Your task to perform on an android device: Open the phone app and click the voicemail tab. Image 0: 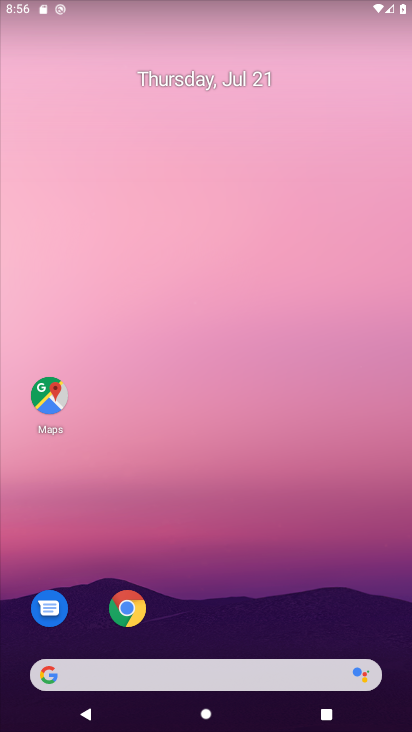
Step 0: click (53, 400)
Your task to perform on an android device: Open the phone app and click the voicemail tab. Image 1: 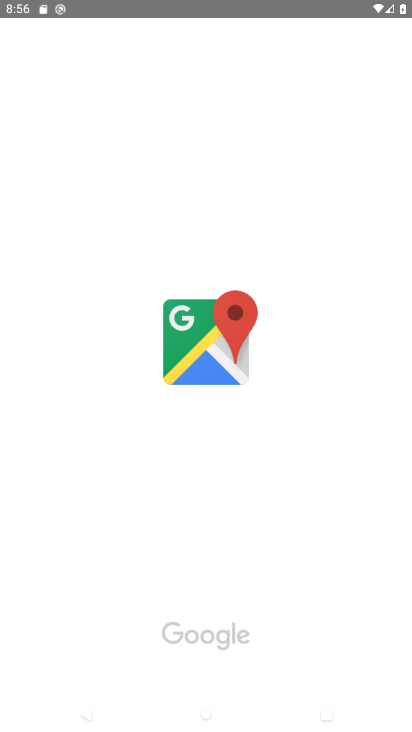
Step 1: press home button
Your task to perform on an android device: Open the phone app and click the voicemail tab. Image 2: 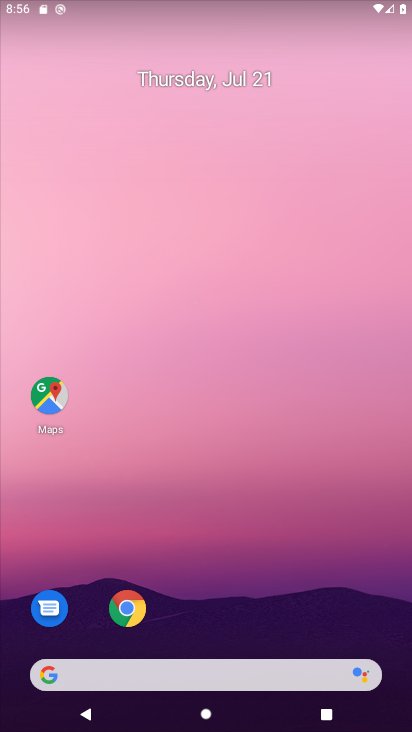
Step 2: drag from (238, 433) to (361, 64)
Your task to perform on an android device: Open the phone app and click the voicemail tab. Image 3: 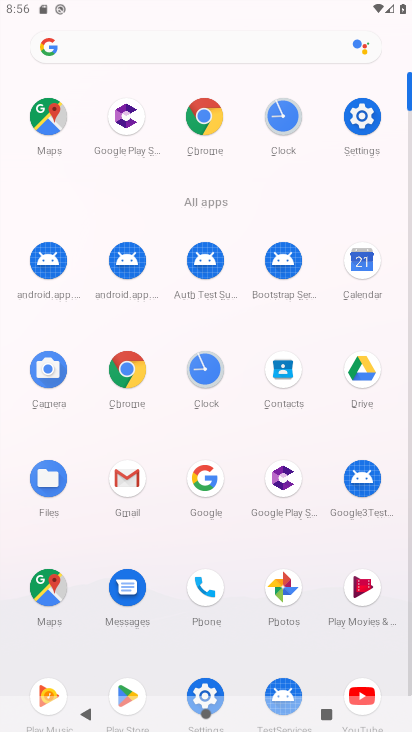
Step 3: click (208, 593)
Your task to perform on an android device: Open the phone app and click the voicemail tab. Image 4: 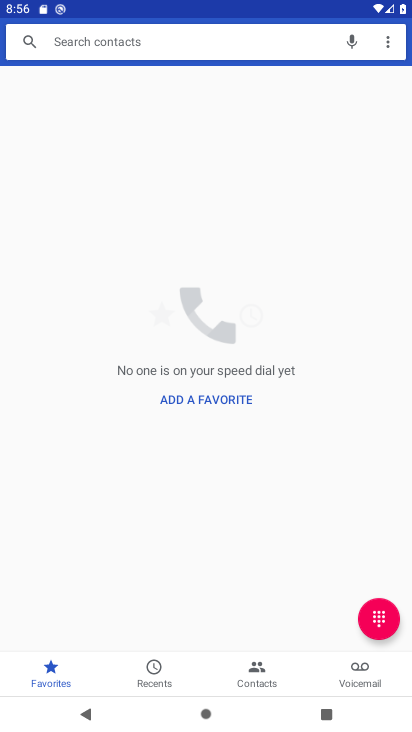
Step 4: click (367, 678)
Your task to perform on an android device: Open the phone app and click the voicemail tab. Image 5: 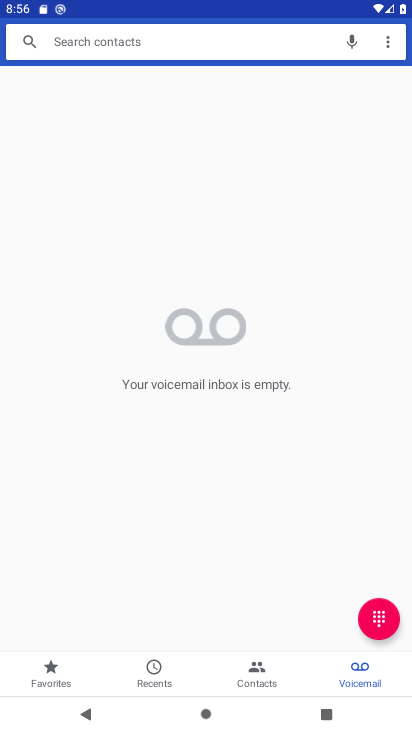
Step 5: task complete